Your task to perform on an android device: allow cookies in the chrome app Image 0: 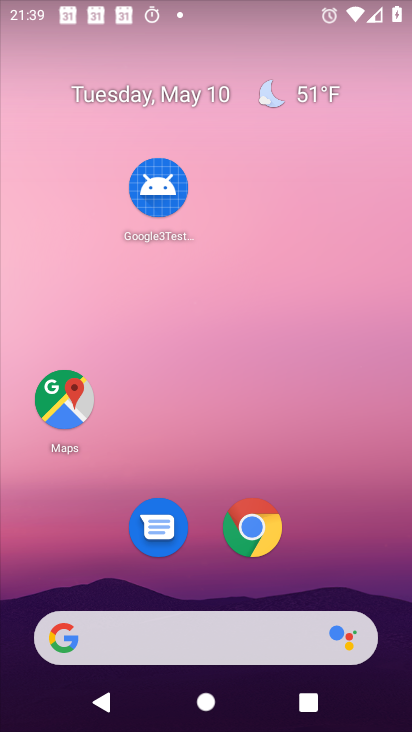
Step 0: drag from (216, 584) to (358, 15)
Your task to perform on an android device: allow cookies in the chrome app Image 1: 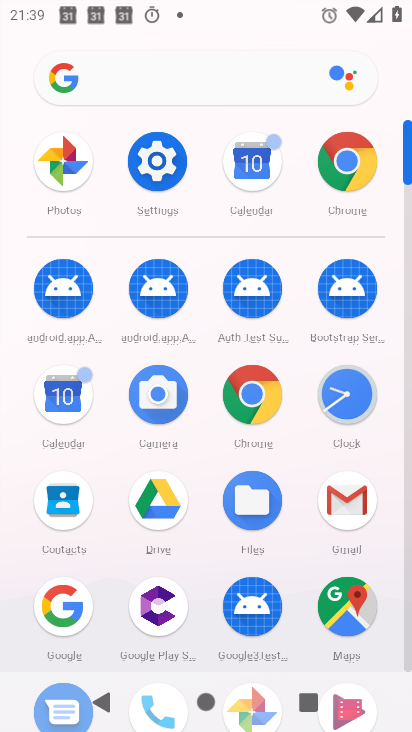
Step 1: click (371, 175)
Your task to perform on an android device: allow cookies in the chrome app Image 2: 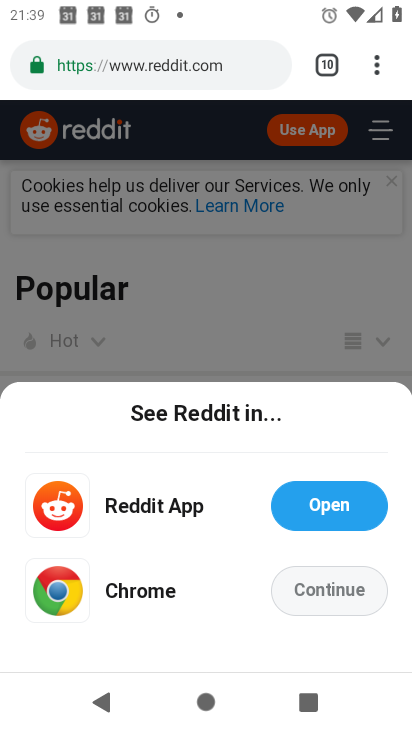
Step 2: click (330, 51)
Your task to perform on an android device: allow cookies in the chrome app Image 3: 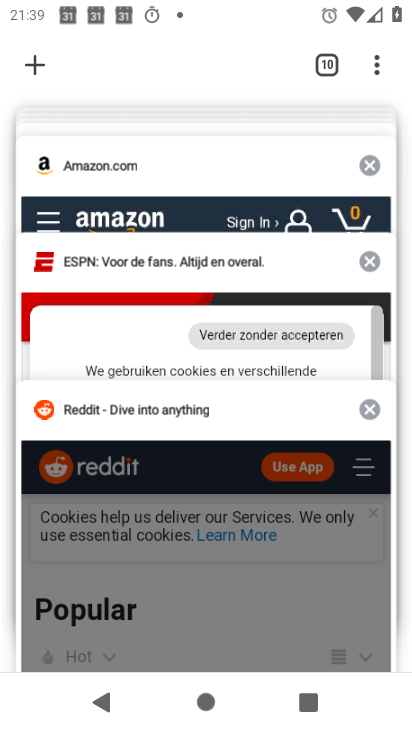
Step 3: click (374, 63)
Your task to perform on an android device: allow cookies in the chrome app Image 4: 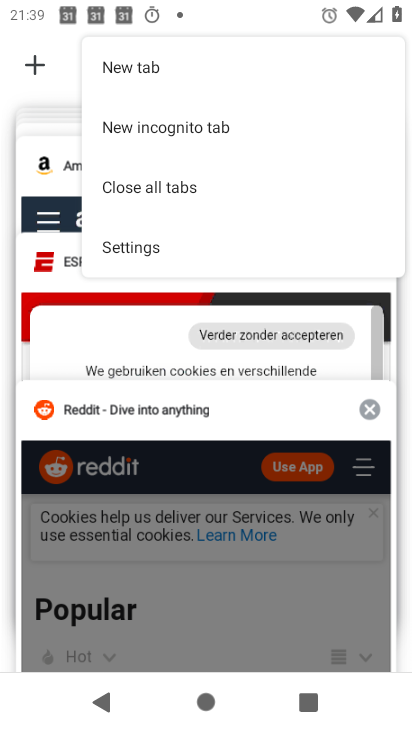
Step 4: click (149, 249)
Your task to perform on an android device: allow cookies in the chrome app Image 5: 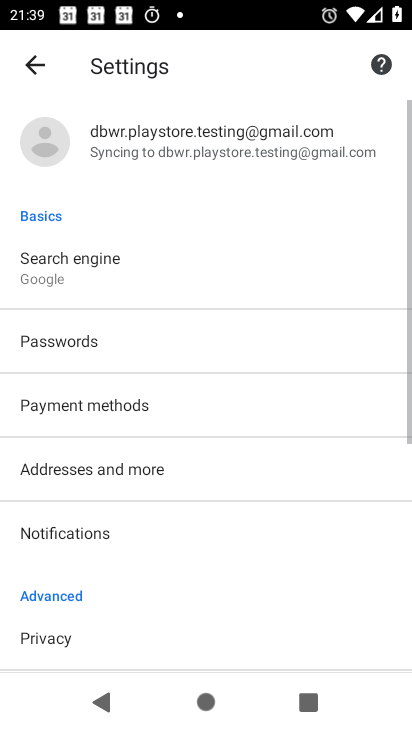
Step 5: drag from (158, 549) to (131, 263)
Your task to perform on an android device: allow cookies in the chrome app Image 6: 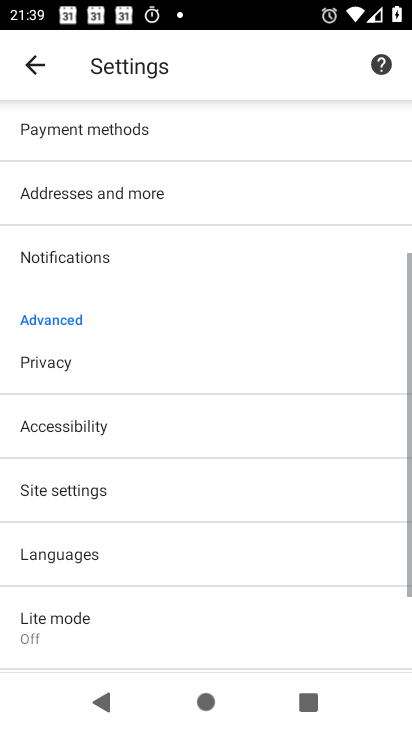
Step 6: click (52, 358)
Your task to perform on an android device: allow cookies in the chrome app Image 7: 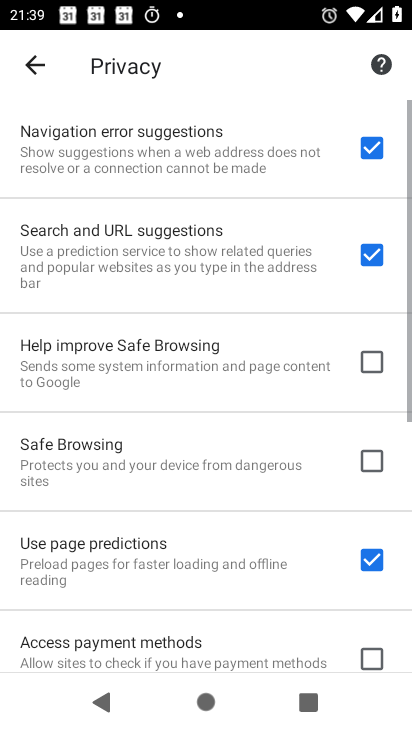
Step 7: click (2, 33)
Your task to perform on an android device: allow cookies in the chrome app Image 8: 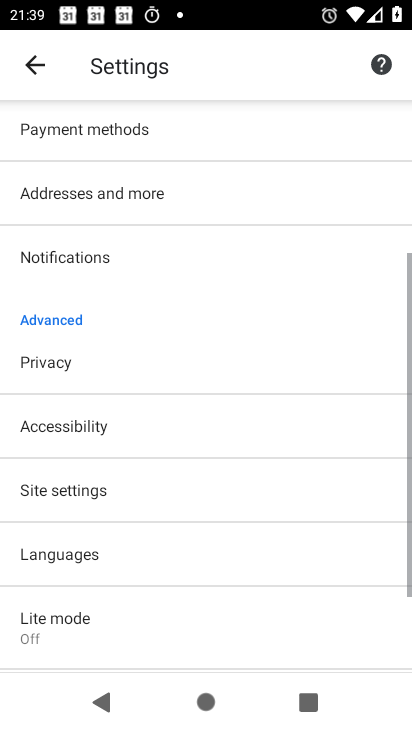
Step 8: click (80, 452)
Your task to perform on an android device: allow cookies in the chrome app Image 9: 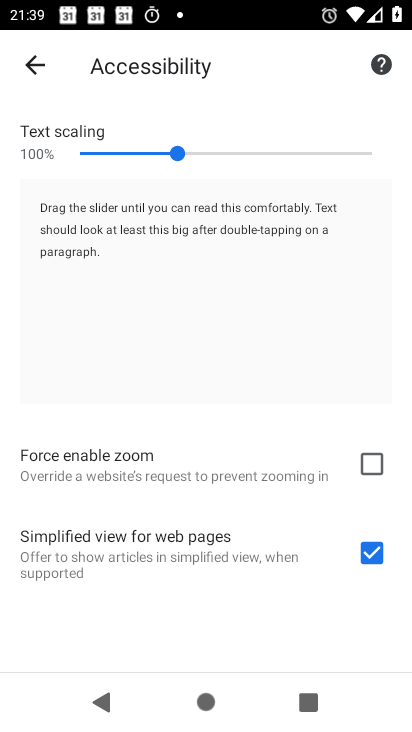
Step 9: click (47, 73)
Your task to perform on an android device: allow cookies in the chrome app Image 10: 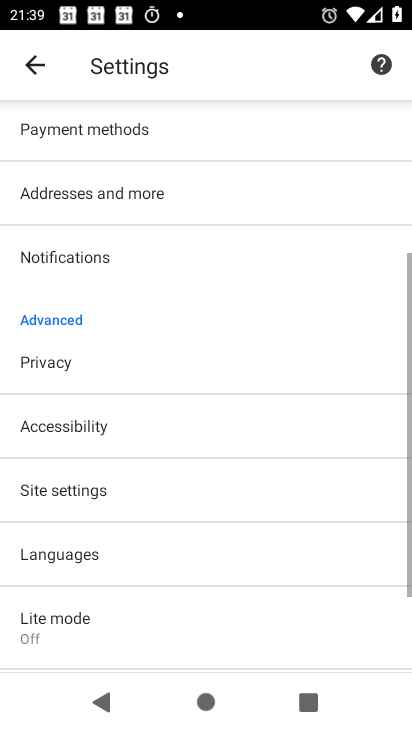
Step 10: click (96, 480)
Your task to perform on an android device: allow cookies in the chrome app Image 11: 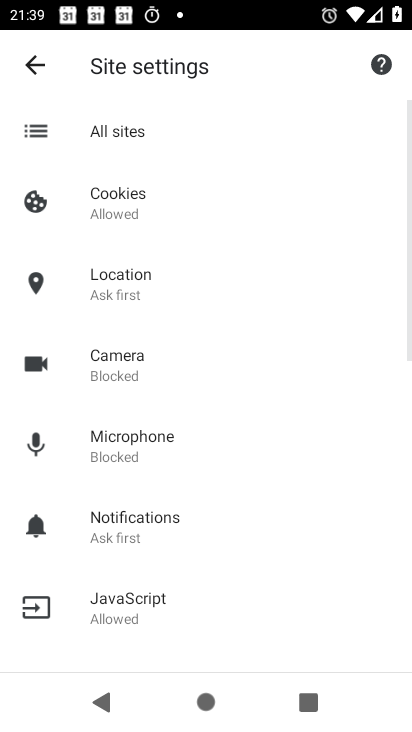
Step 11: click (135, 185)
Your task to perform on an android device: allow cookies in the chrome app Image 12: 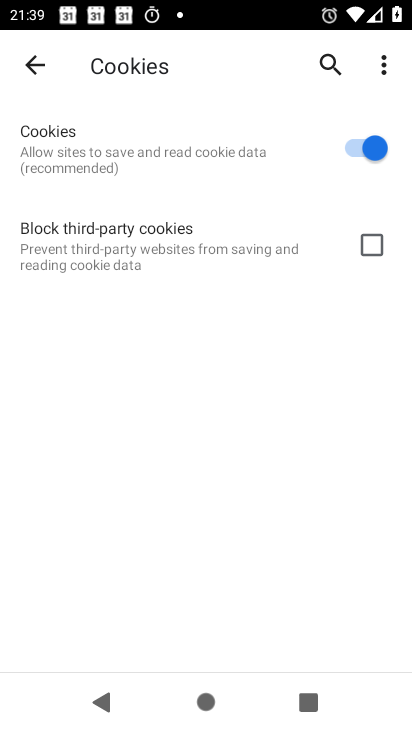
Step 12: task complete